Your task to perform on an android device: open app "Grab" (install if not already installed) and enter user name: "interspersion@gmail.com" and password: "aristocrats" Image 0: 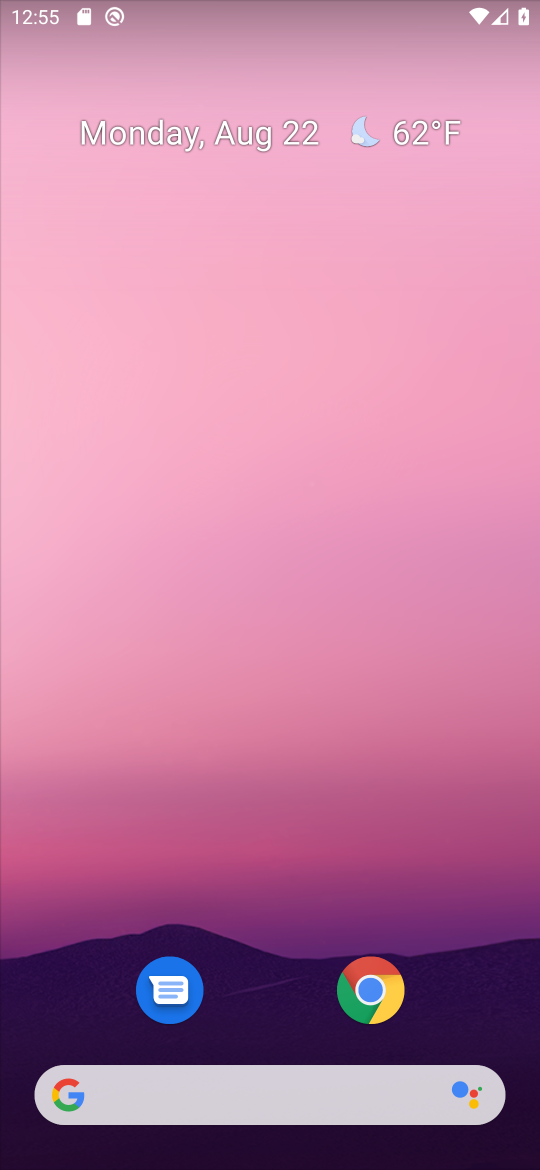
Step 0: drag from (269, 947) to (291, 360)
Your task to perform on an android device: open app "Grab" (install if not already installed) and enter user name: "interspersion@gmail.com" and password: "aristocrats" Image 1: 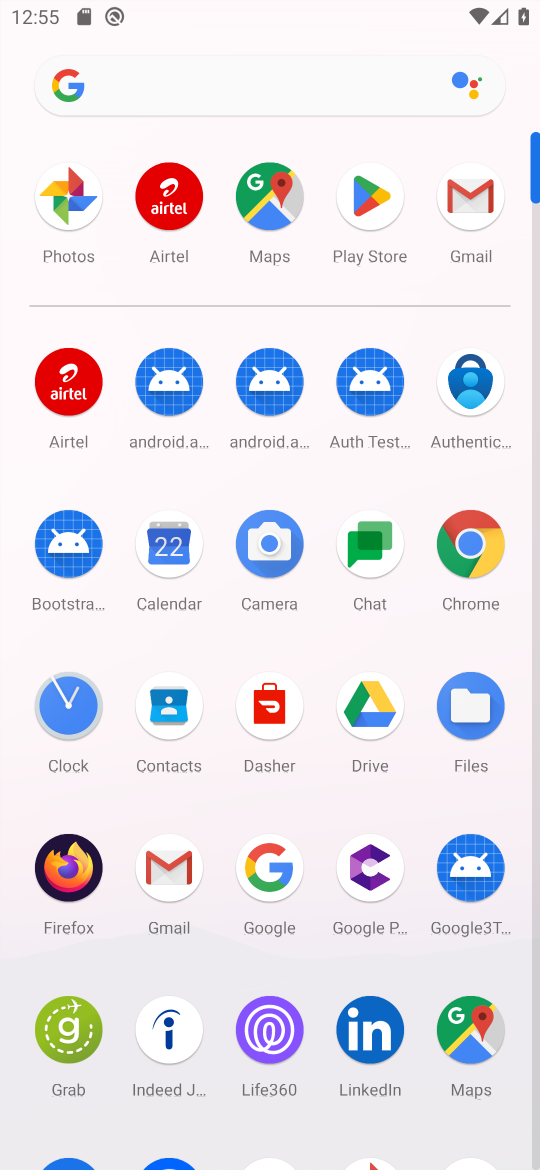
Step 1: drag from (202, 896) to (207, 288)
Your task to perform on an android device: open app "Grab" (install if not already installed) and enter user name: "interspersion@gmail.com" and password: "aristocrats" Image 2: 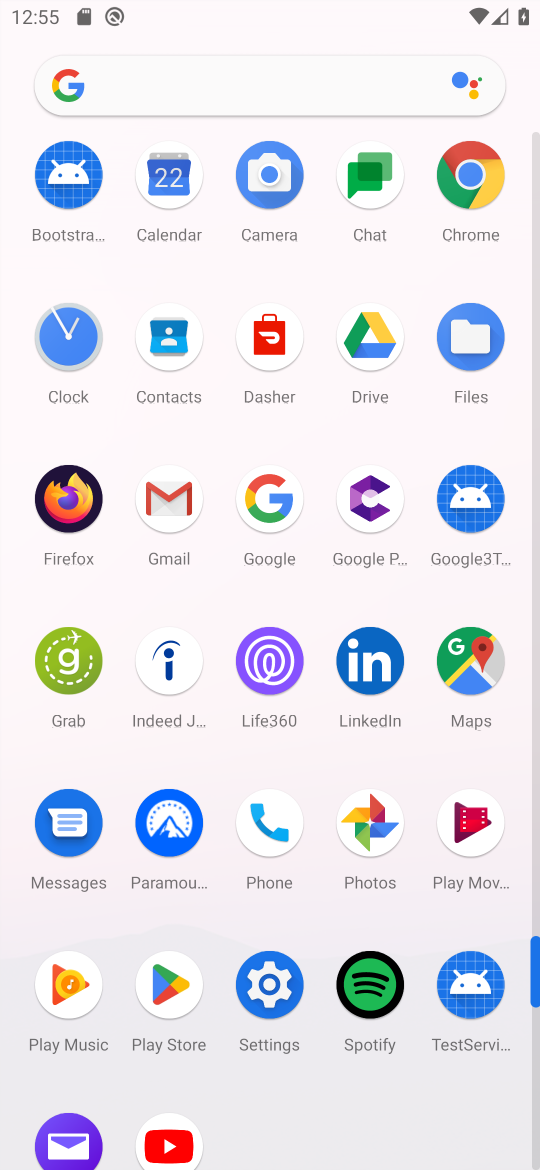
Step 2: click (273, 956)
Your task to perform on an android device: open app "Grab" (install if not already installed) and enter user name: "interspersion@gmail.com" and password: "aristocrats" Image 3: 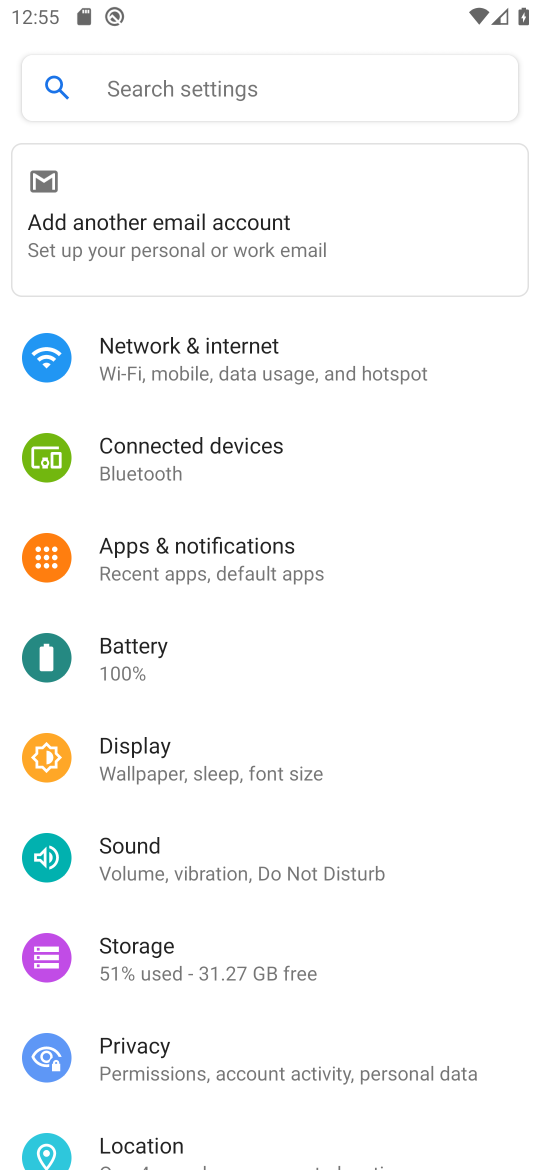
Step 3: press home button
Your task to perform on an android device: open app "Grab" (install if not already installed) and enter user name: "interspersion@gmail.com" and password: "aristocrats" Image 4: 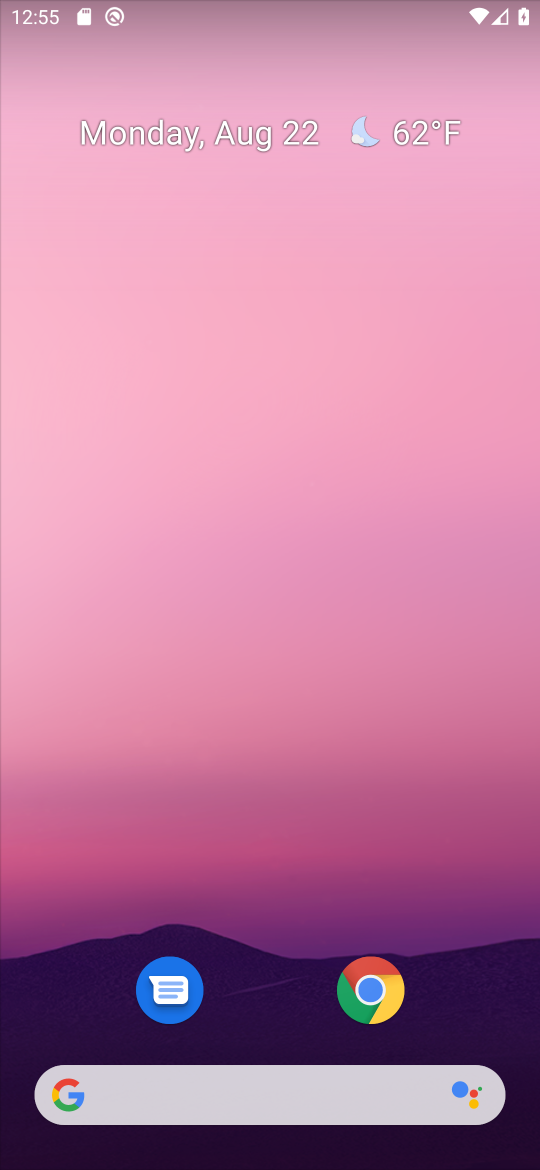
Step 4: drag from (257, 532) to (257, 234)
Your task to perform on an android device: open app "Grab" (install if not already installed) and enter user name: "interspersion@gmail.com" and password: "aristocrats" Image 5: 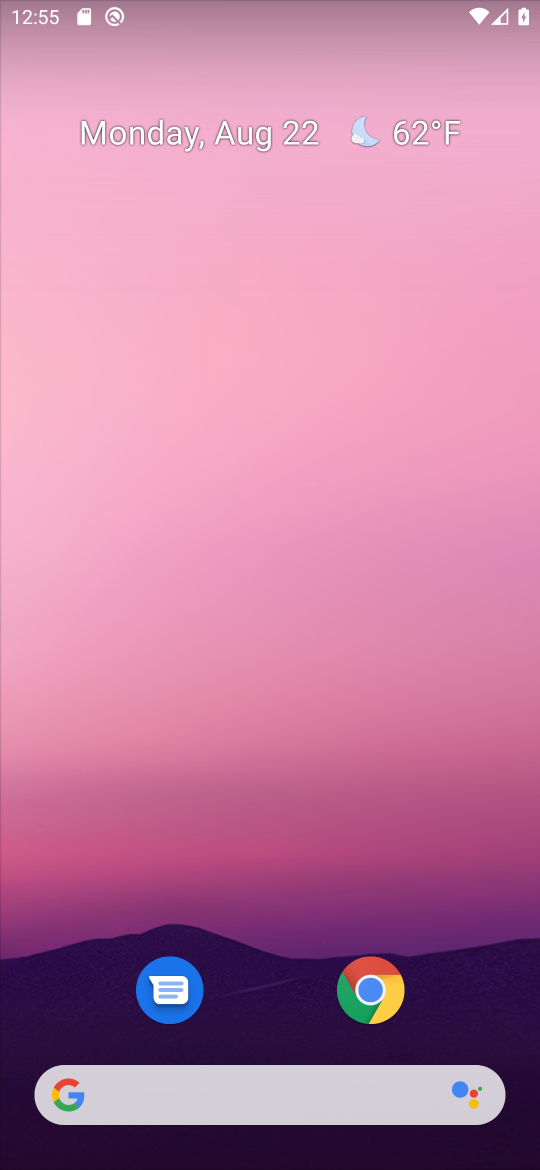
Step 5: drag from (270, 916) to (270, 291)
Your task to perform on an android device: open app "Grab" (install if not already installed) and enter user name: "interspersion@gmail.com" and password: "aristocrats" Image 6: 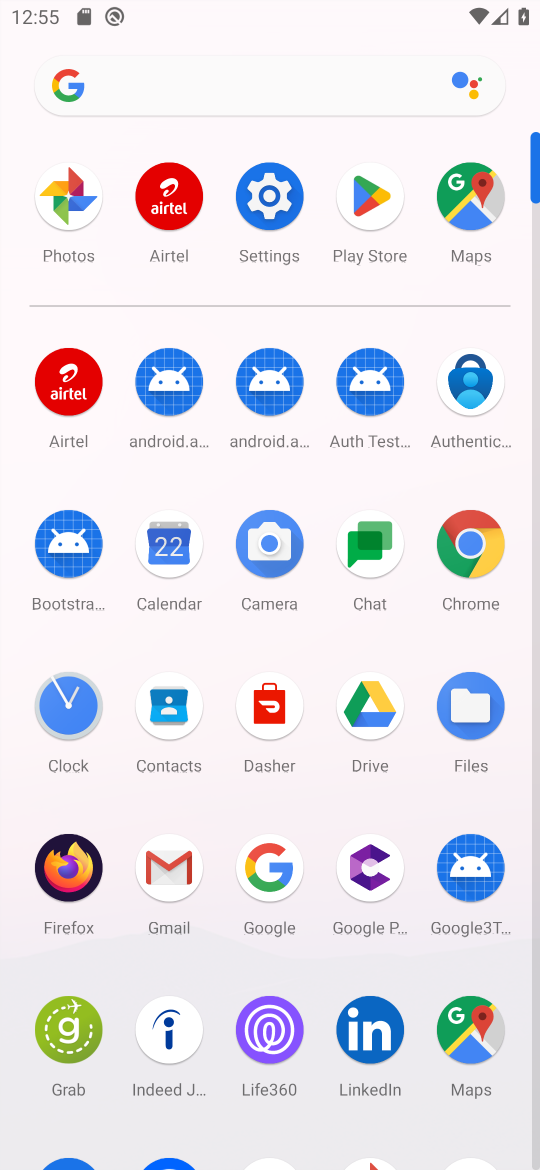
Step 6: click (348, 233)
Your task to perform on an android device: open app "Grab" (install if not already installed) and enter user name: "interspersion@gmail.com" and password: "aristocrats" Image 7: 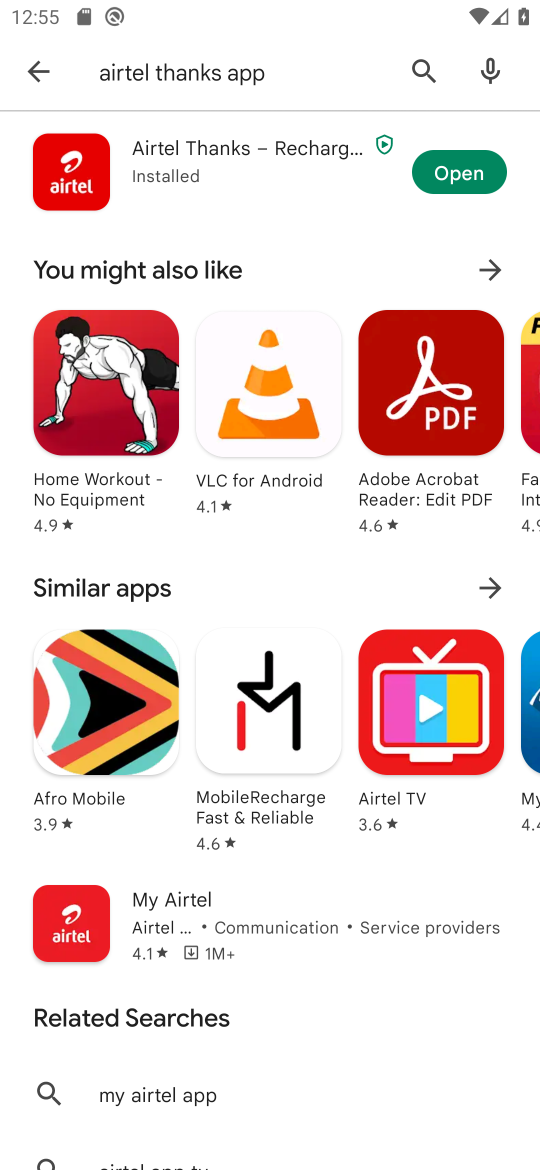
Step 7: click (420, 66)
Your task to perform on an android device: open app "Grab" (install if not already installed) and enter user name: "interspersion@gmail.com" and password: "aristocrats" Image 8: 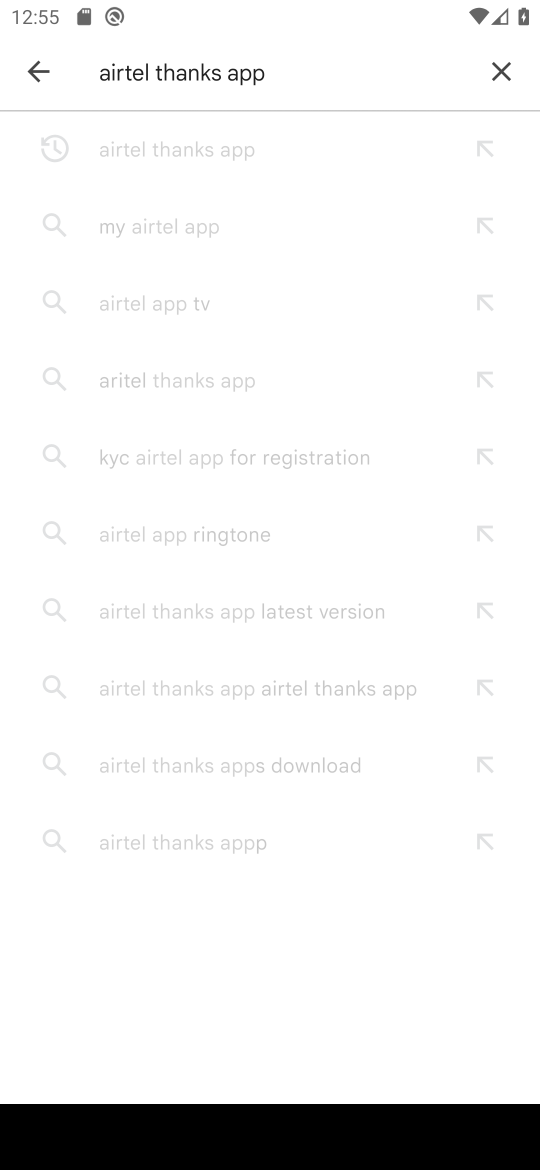
Step 8: click (494, 64)
Your task to perform on an android device: open app "Grab" (install if not already installed) and enter user name: "interspersion@gmail.com" and password: "aristocrats" Image 9: 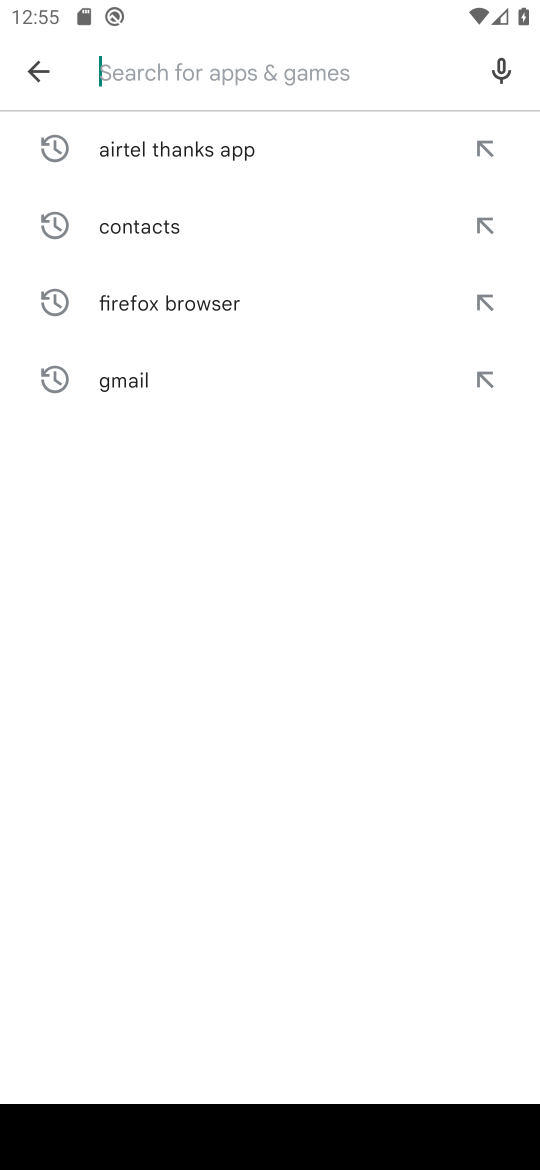
Step 9: type "Grab"
Your task to perform on an android device: open app "Grab" (install if not already installed) and enter user name: "interspersion@gmail.com" and password: "aristocrats" Image 10: 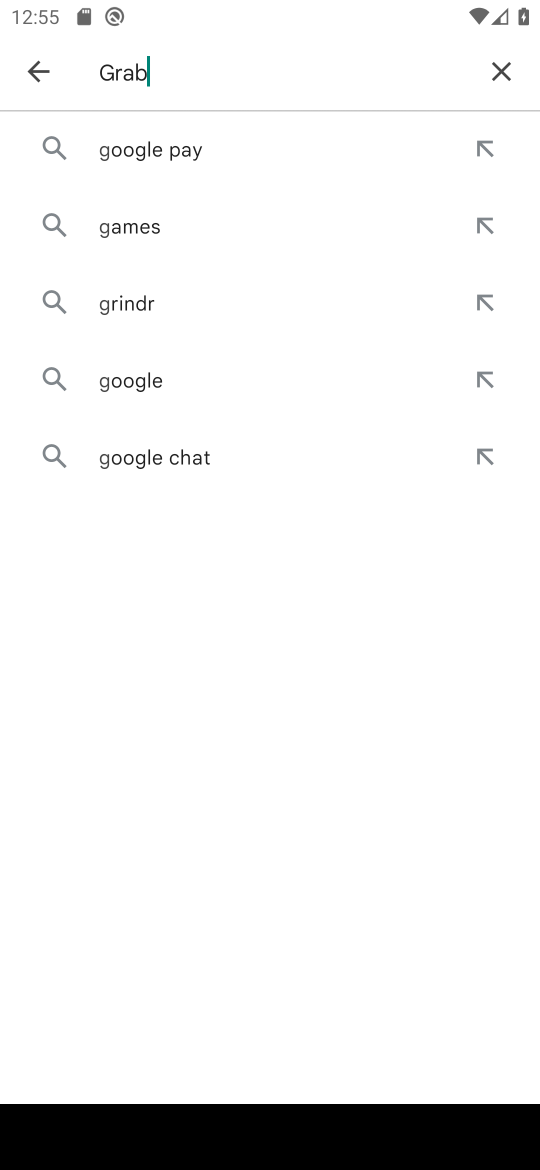
Step 10: type ""
Your task to perform on an android device: open app "Grab" (install if not already installed) and enter user name: "interspersion@gmail.com" and password: "aristocrats" Image 11: 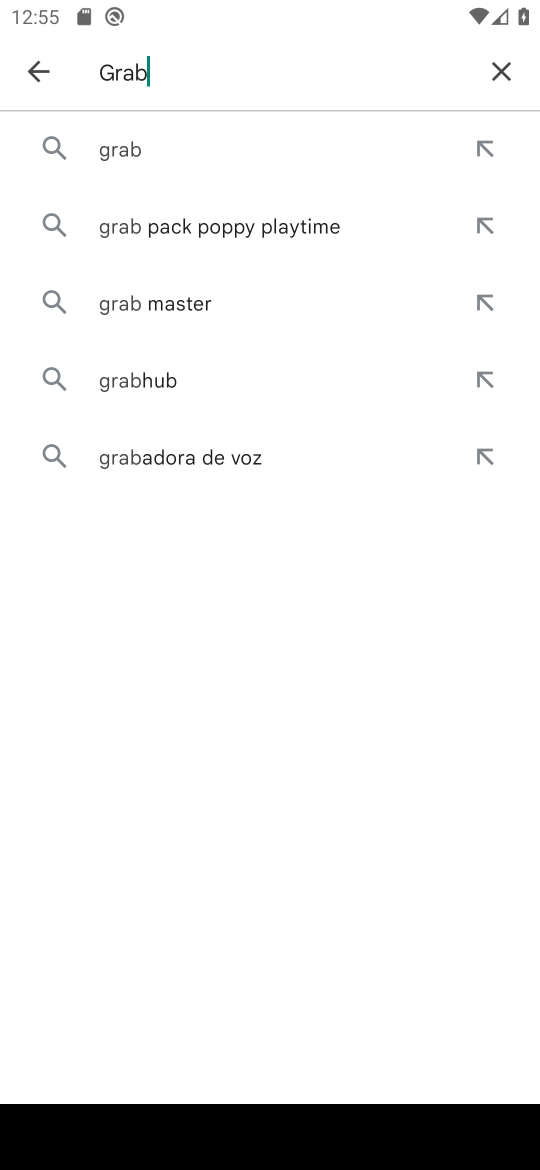
Step 11: click (142, 152)
Your task to perform on an android device: open app "Grab" (install if not already installed) and enter user name: "interspersion@gmail.com" and password: "aristocrats" Image 12: 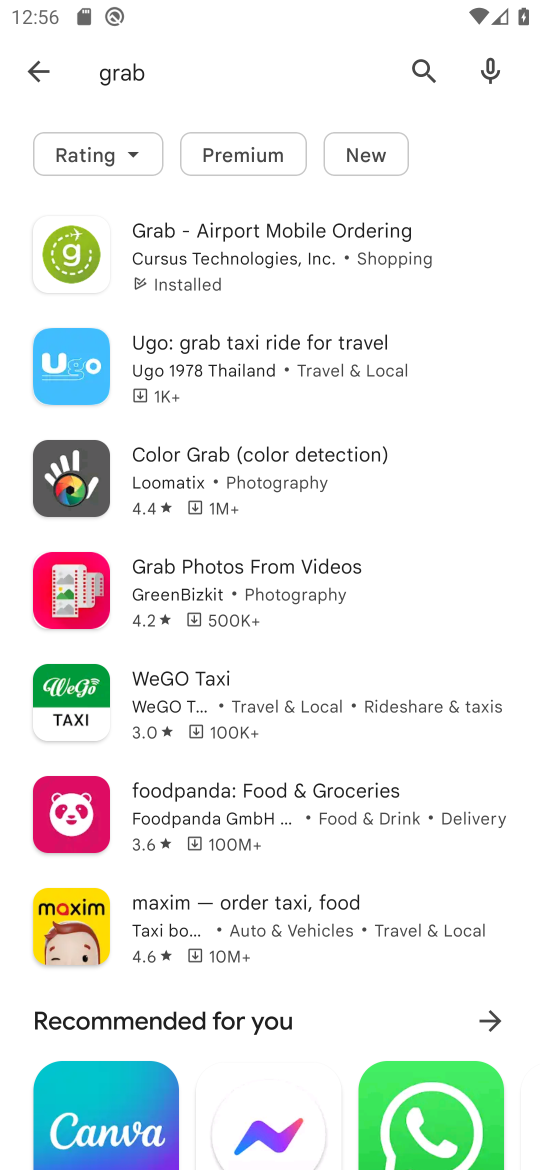
Step 12: click (227, 233)
Your task to perform on an android device: open app "Grab" (install if not already installed) and enter user name: "interspersion@gmail.com" and password: "aristocrats" Image 13: 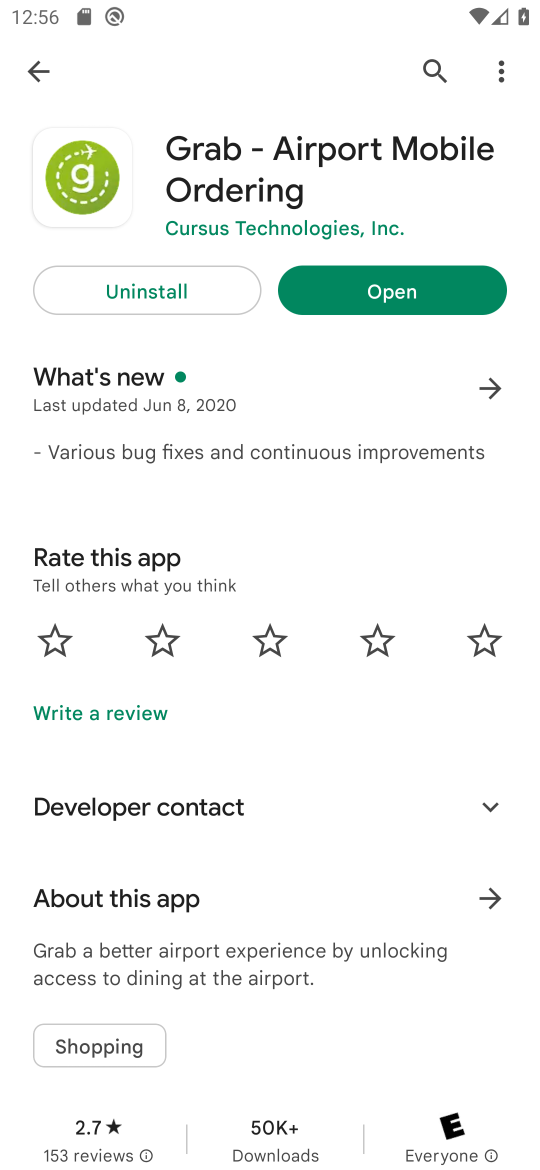
Step 13: click (395, 277)
Your task to perform on an android device: open app "Grab" (install if not already installed) and enter user name: "interspersion@gmail.com" and password: "aristocrats" Image 14: 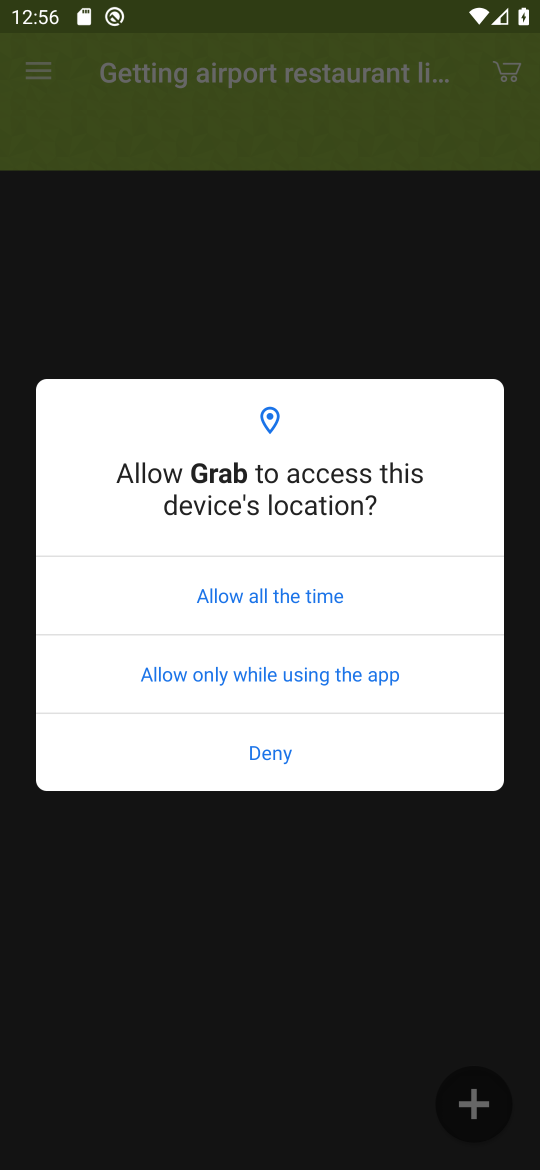
Step 14: task complete